Your task to perform on an android device: open chrome and create a bookmark for the current page Image 0: 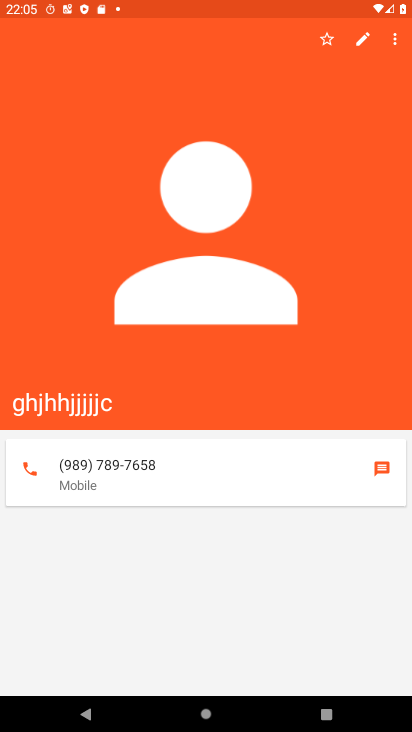
Step 0: press home button
Your task to perform on an android device: open chrome and create a bookmark for the current page Image 1: 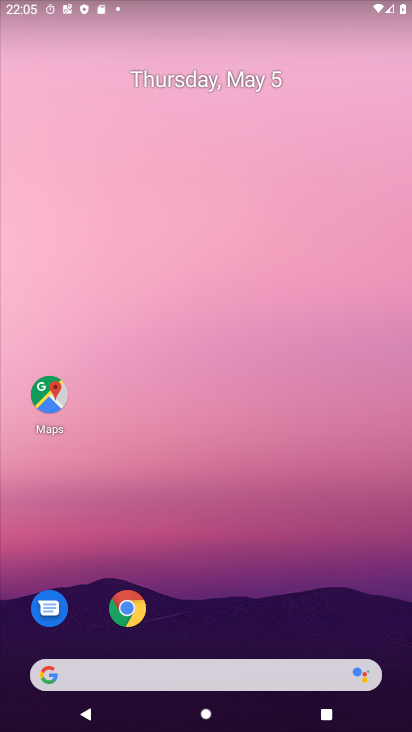
Step 1: drag from (318, 641) to (336, 7)
Your task to perform on an android device: open chrome and create a bookmark for the current page Image 2: 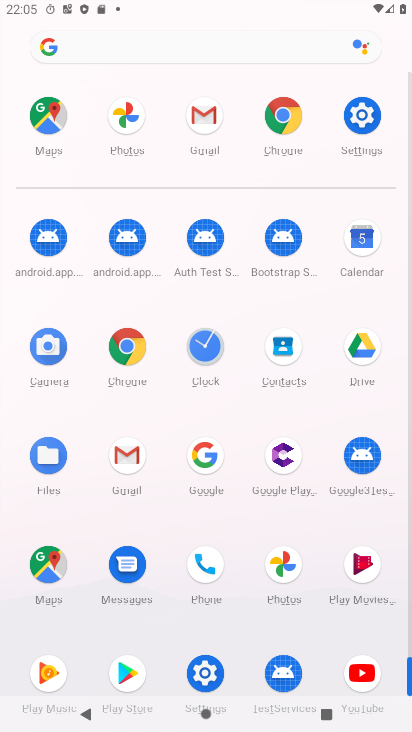
Step 2: click (130, 346)
Your task to perform on an android device: open chrome and create a bookmark for the current page Image 3: 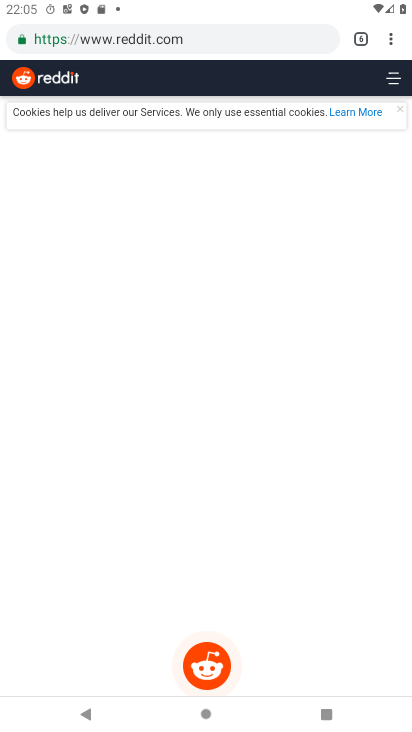
Step 3: click (383, 39)
Your task to perform on an android device: open chrome and create a bookmark for the current page Image 4: 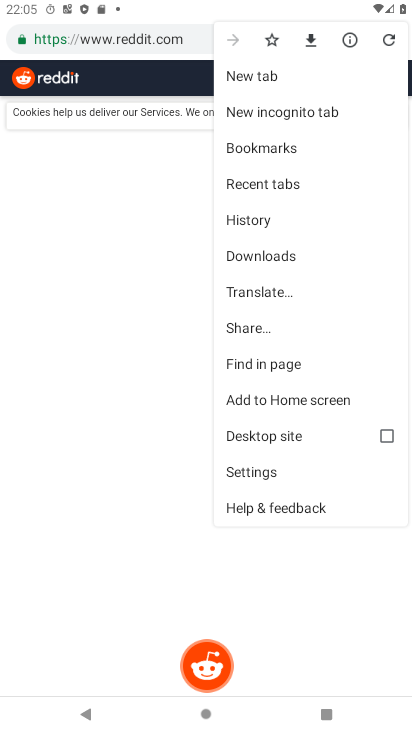
Step 4: click (291, 149)
Your task to perform on an android device: open chrome and create a bookmark for the current page Image 5: 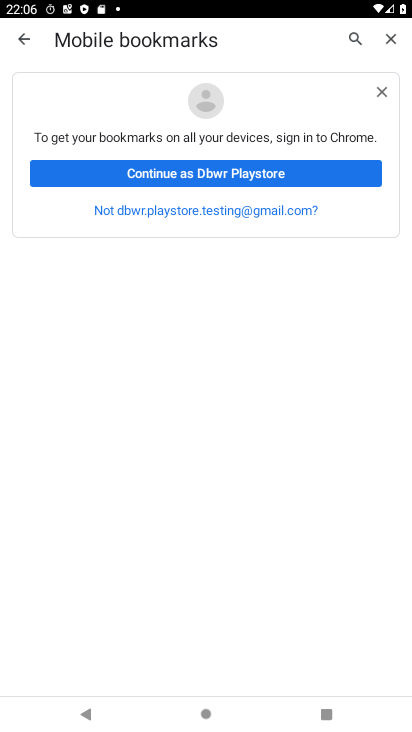
Step 5: press back button
Your task to perform on an android device: open chrome and create a bookmark for the current page Image 6: 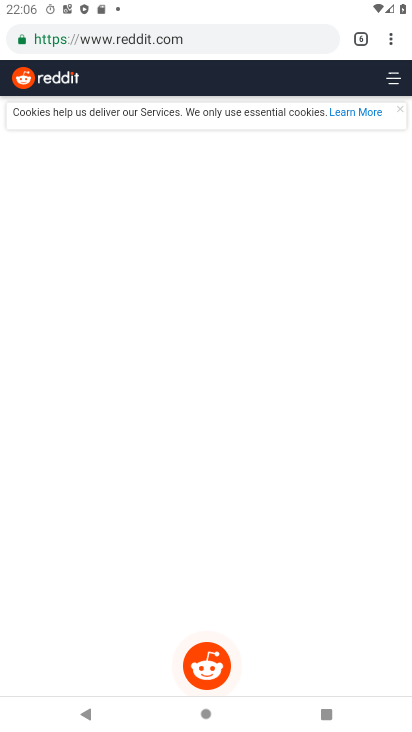
Step 6: click (384, 39)
Your task to perform on an android device: open chrome and create a bookmark for the current page Image 7: 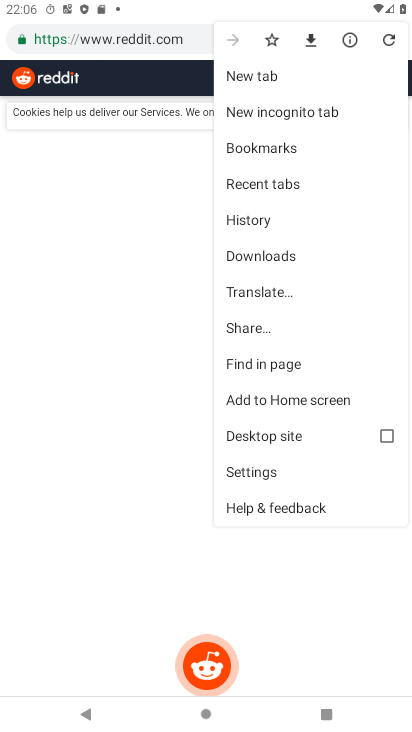
Step 7: click (270, 38)
Your task to perform on an android device: open chrome and create a bookmark for the current page Image 8: 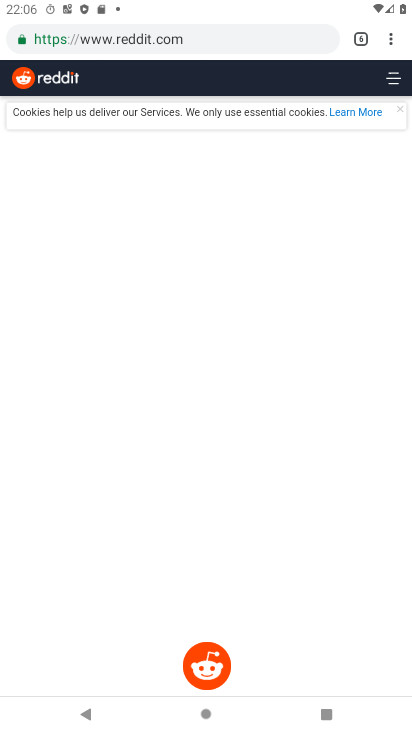
Step 8: task complete